Your task to perform on an android device: Go to Google Image 0: 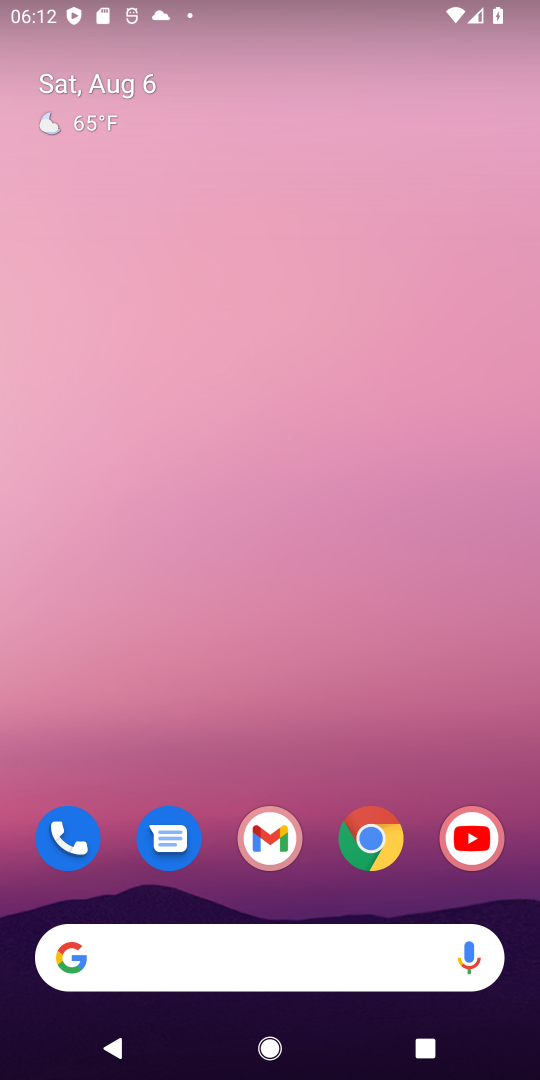
Step 0: drag from (334, 706) to (224, 167)
Your task to perform on an android device: Go to Google Image 1: 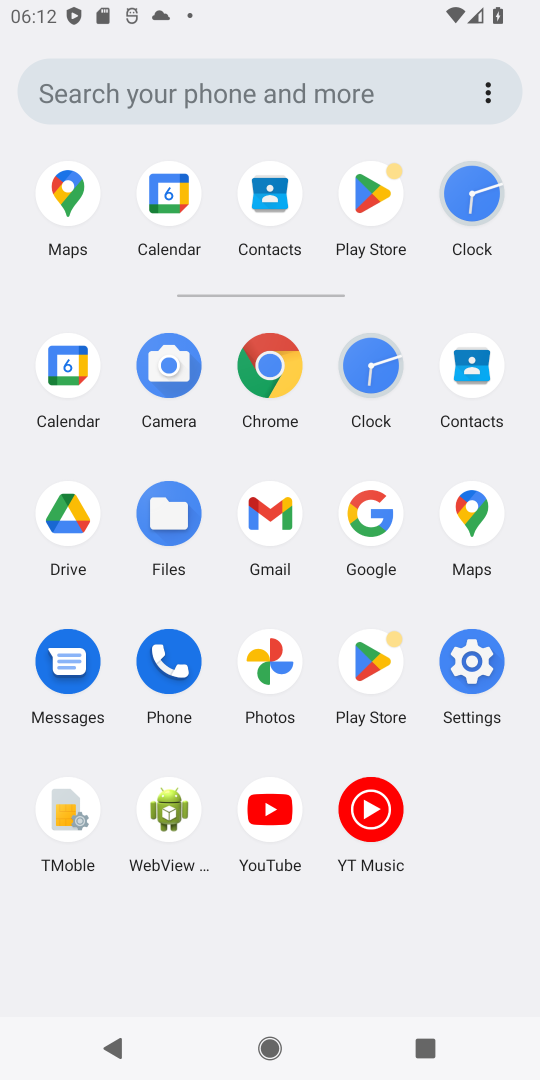
Step 1: click (383, 543)
Your task to perform on an android device: Go to Google Image 2: 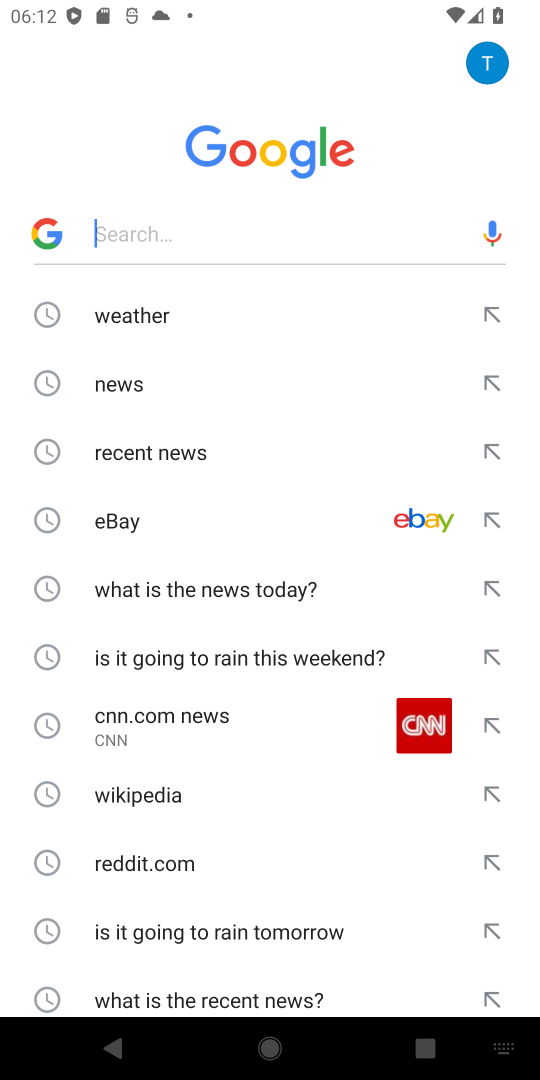
Step 2: task complete